Your task to perform on an android device: toggle airplane mode Image 0: 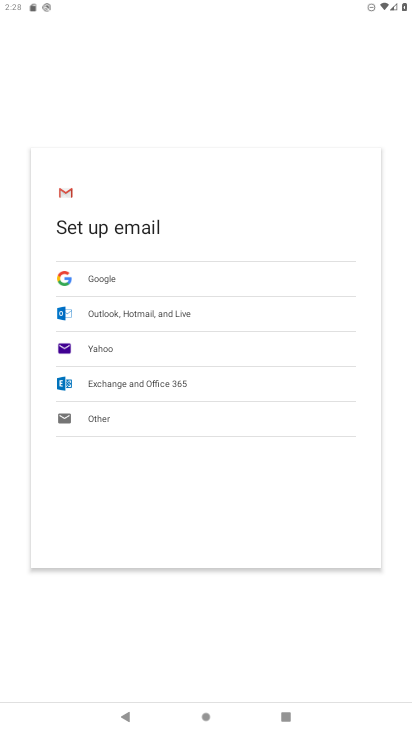
Step 0: press home button
Your task to perform on an android device: toggle airplane mode Image 1: 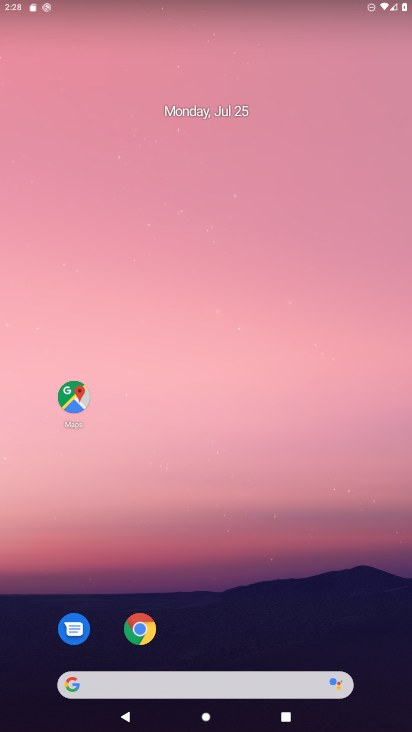
Step 1: drag from (355, 447) to (398, 15)
Your task to perform on an android device: toggle airplane mode Image 2: 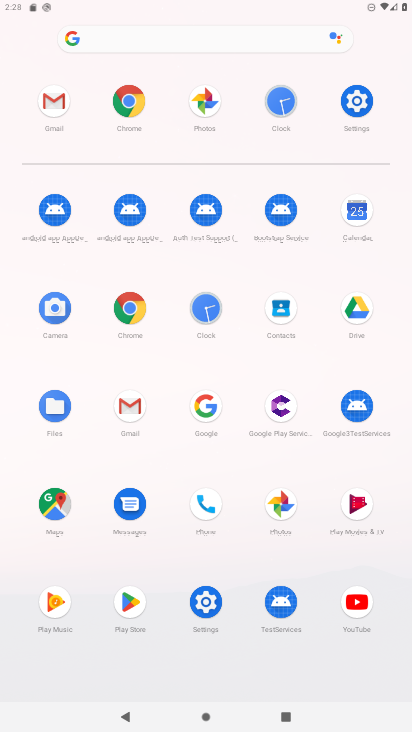
Step 2: click (362, 103)
Your task to perform on an android device: toggle airplane mode Image 3: 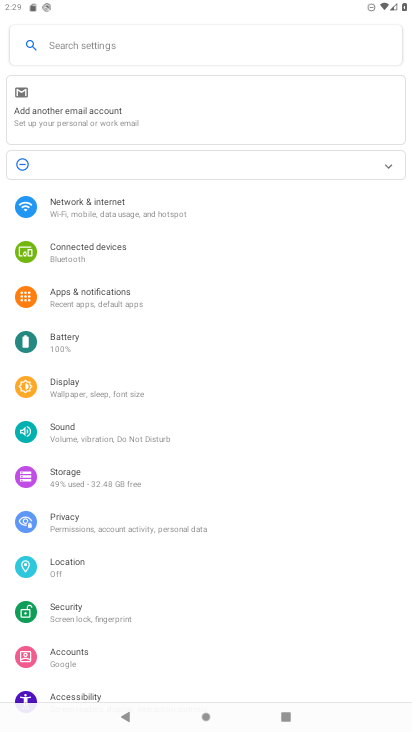
Step 3: click (72, 208)
Your task to perform on an android device: toggle airplane mode Image 4: 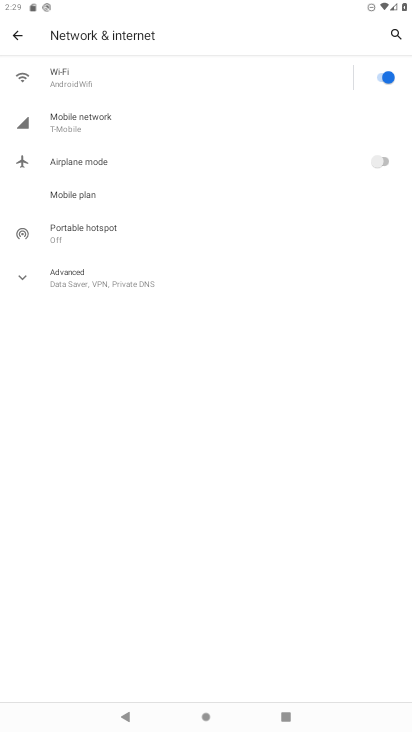
Step 4: click (88, 163)
Your task to perform on an android device: toggle airplane mode Image 5: 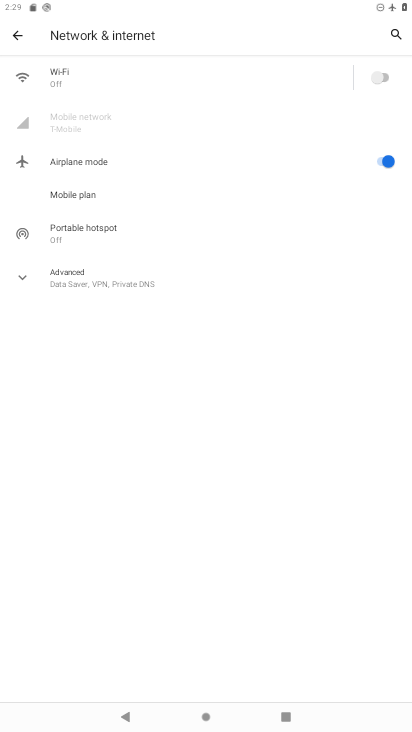
Step 5: task complete